Your task to perform on an android device: Open settings on Google Maps Image 0: 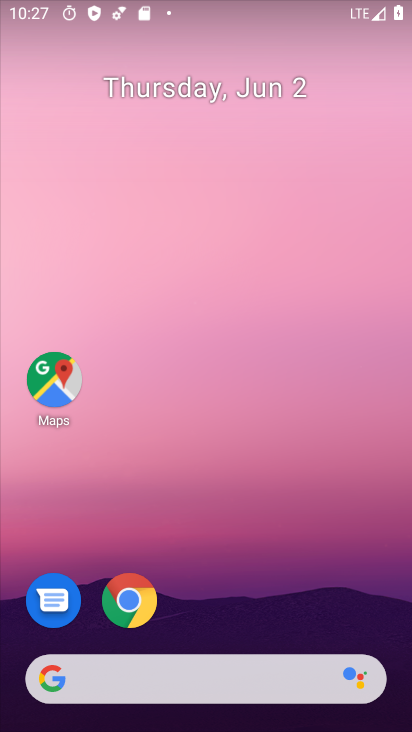
Step 0: click (58, 391)
Your task to perform on an android device: Open settings on Google Maps Image 1: 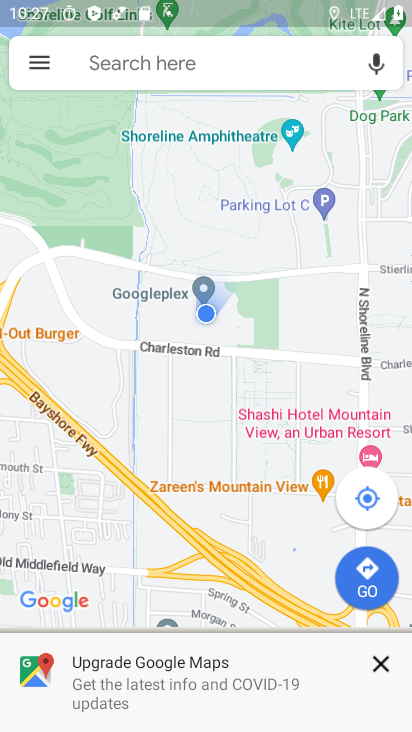
Step 1: click (42, 65)
Your task to perform on an android device: Open settings on Google Maps Image 2: 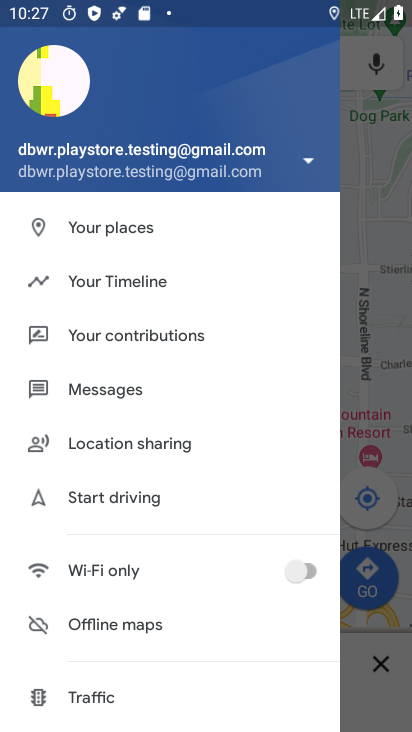
Step 2: drag from (178, 658) to (219, 50)
Your task to perform on an android device: Open settings on Google Maps Image 3: 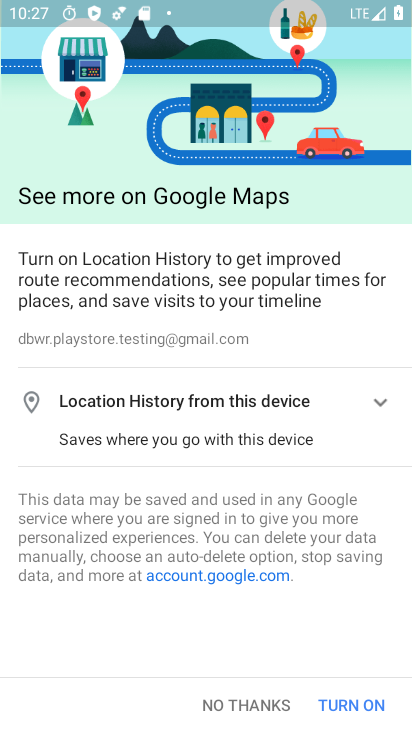
Step 3: click (255, 697)
Your task to perform on an android device: Open settings on Google Maps Image 4: 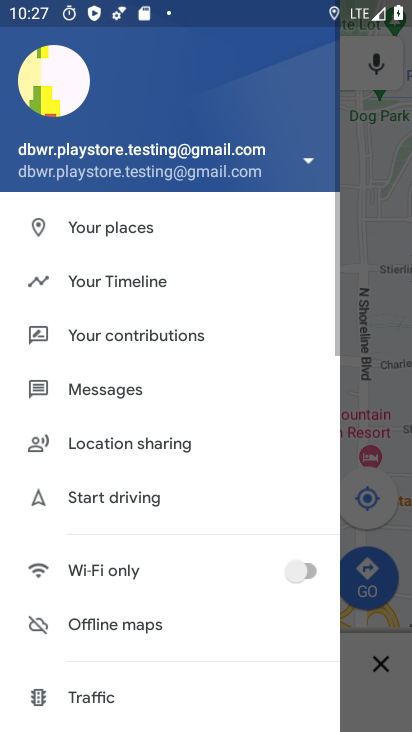
Step 4: drag from (171, 636) to (162, 77)
Your task to perform on an android device: Open settings on Google Maps Image 5: 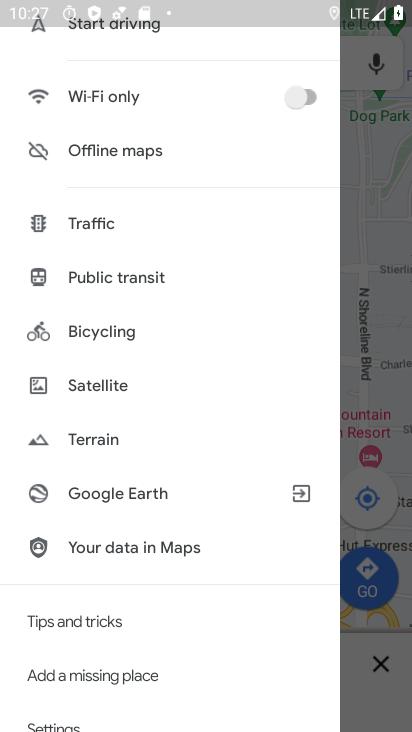
Step 5: drag from (124, 716) to (121, 390)
Your task to perform on an android device: Open settings on Google Maps Image 6: 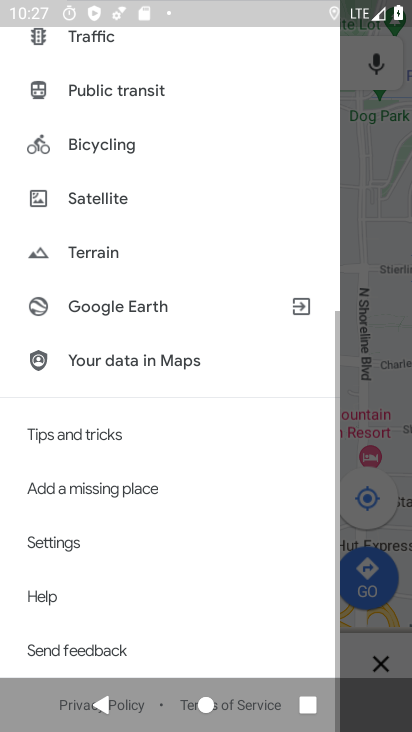
Step 6: click (59, 538)
Your task to perform on an android device: Open settings on Google Maps Image 7: 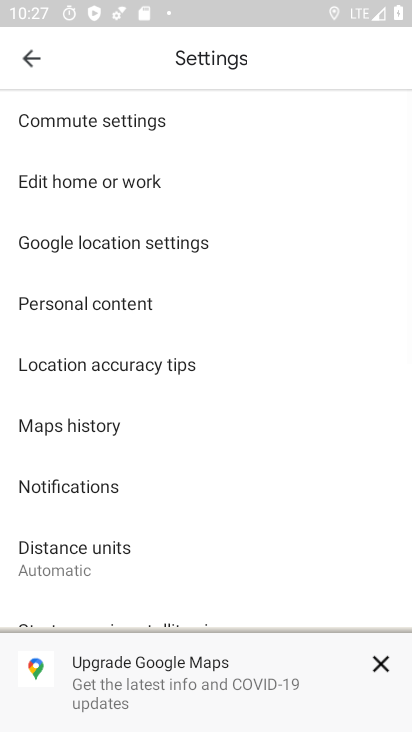
Step 7: task complete